Your task to perform on an android device: turn off translation in the chrome app Image 0: 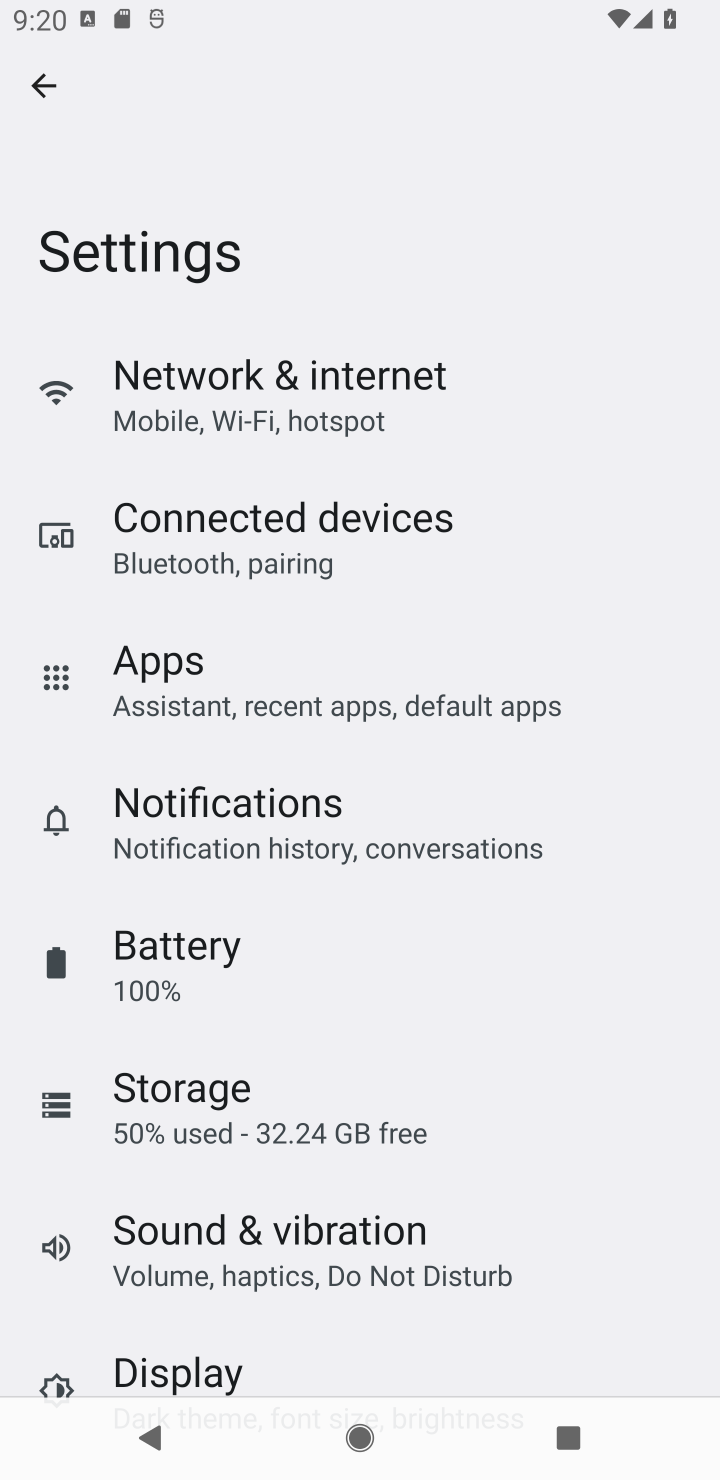
Step 0: press home button
Your task to perform on an android device: turn off translation in the chrome app Image 1: 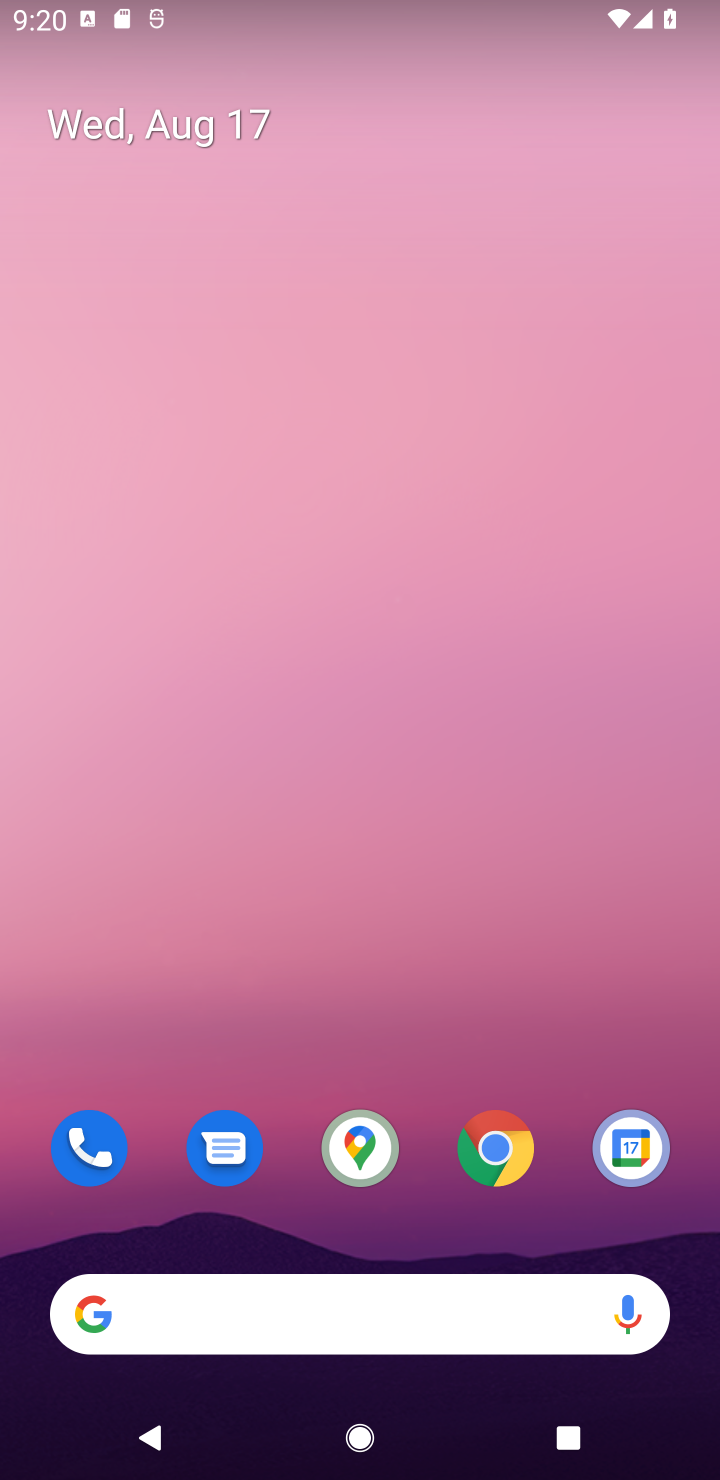
Step 1: click (500, 1155)
Your task to perform on an android device: turn off translation in the chrome app Image 2: 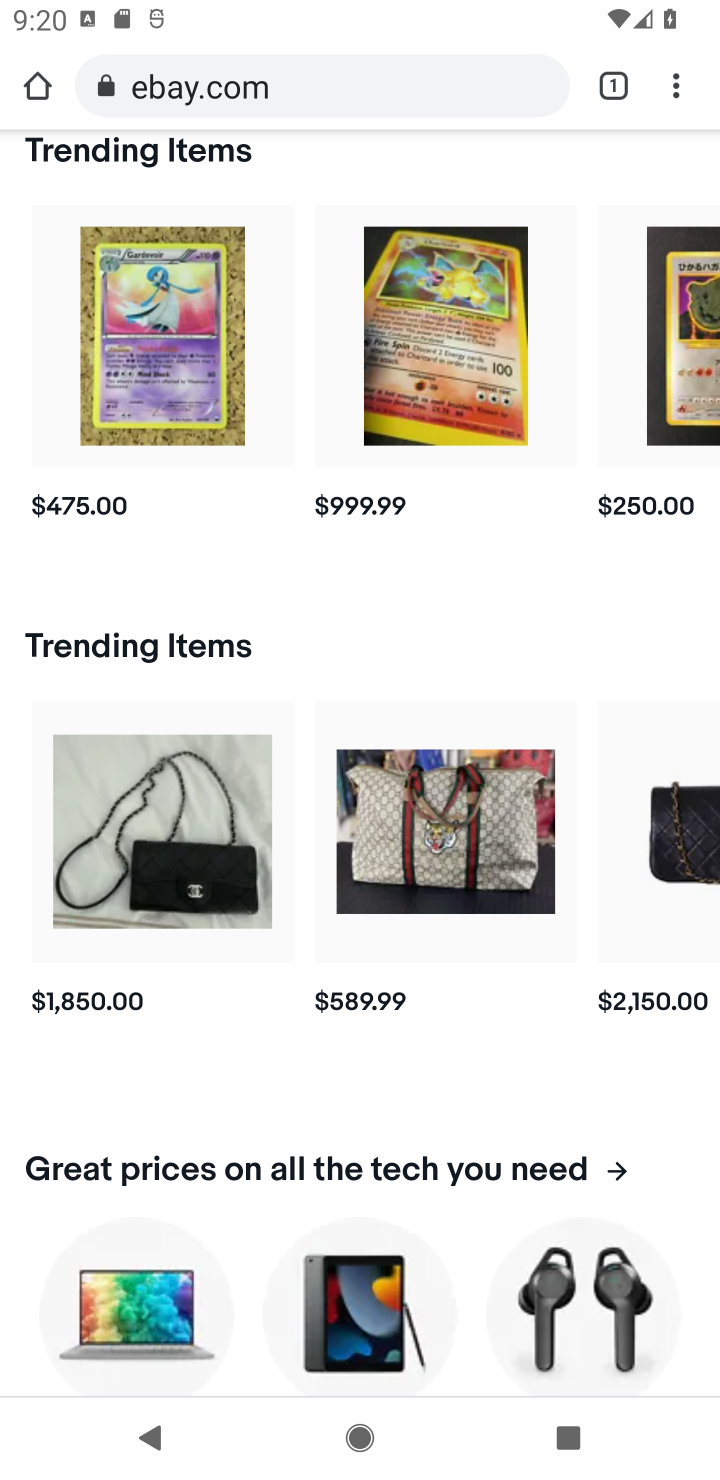
Step 2: click (666, 99)
Your task to perform on an android device: turn off translation in the chrome app Image 3: 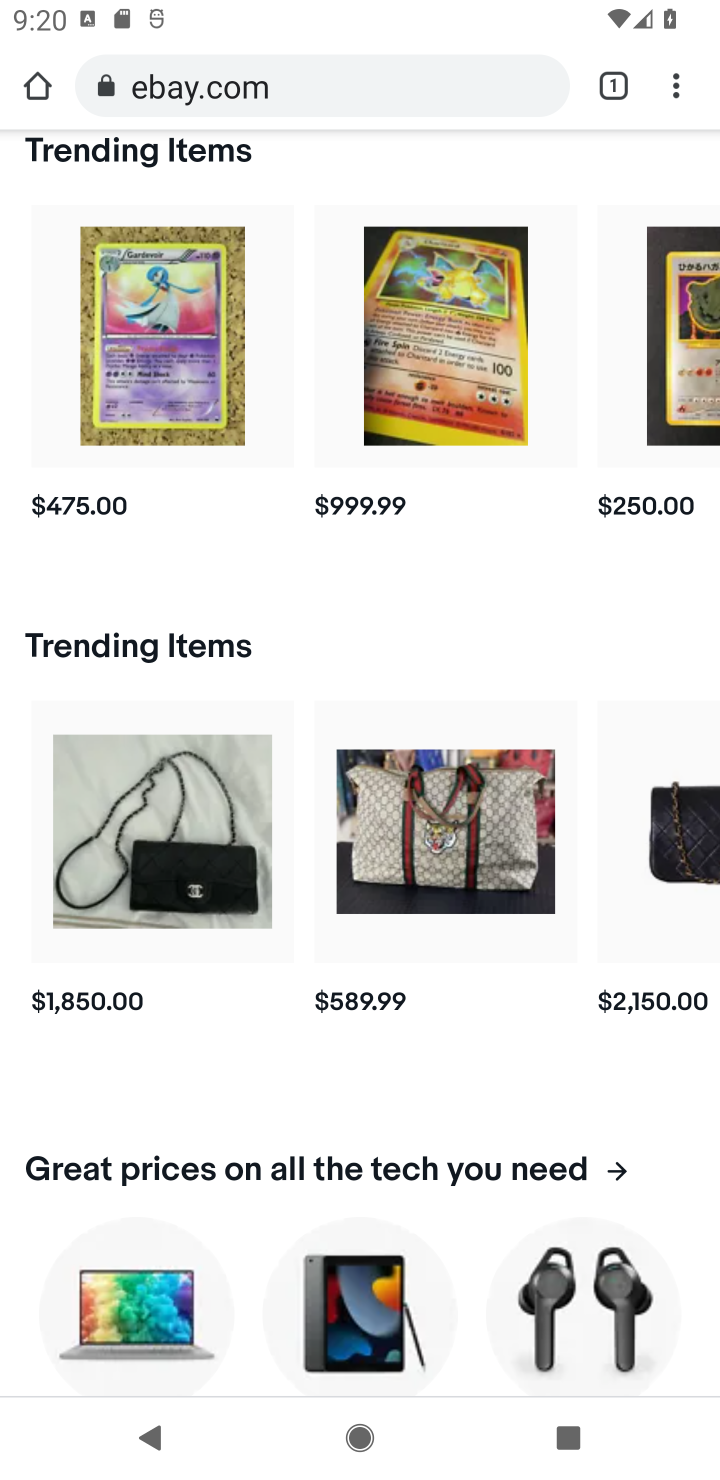
Step 3: click (666, 99)
Your task to perform on an android device: turn off translation in the chrome app Image 4: 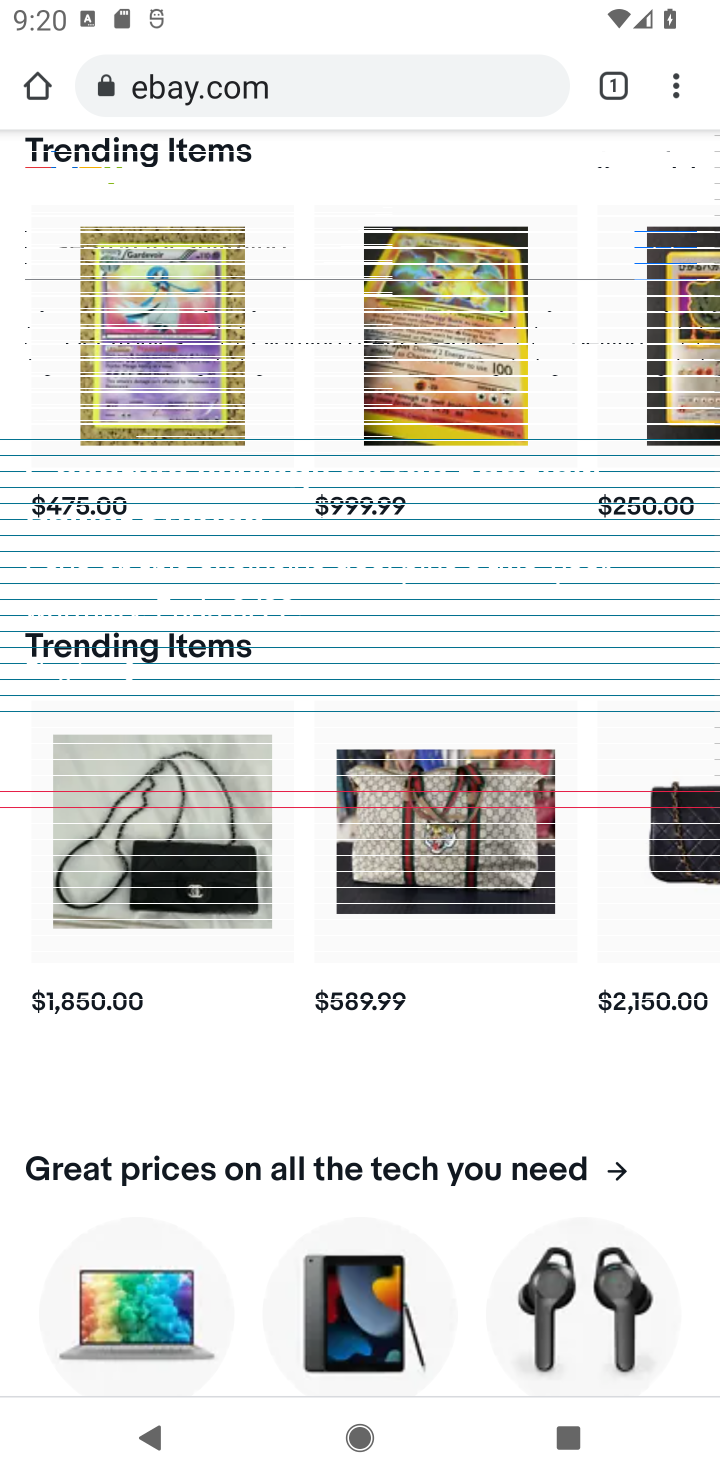
Step 4: click (662, 99)
Your task to perform on an android device: turn off translation in the chrome app Image 5: 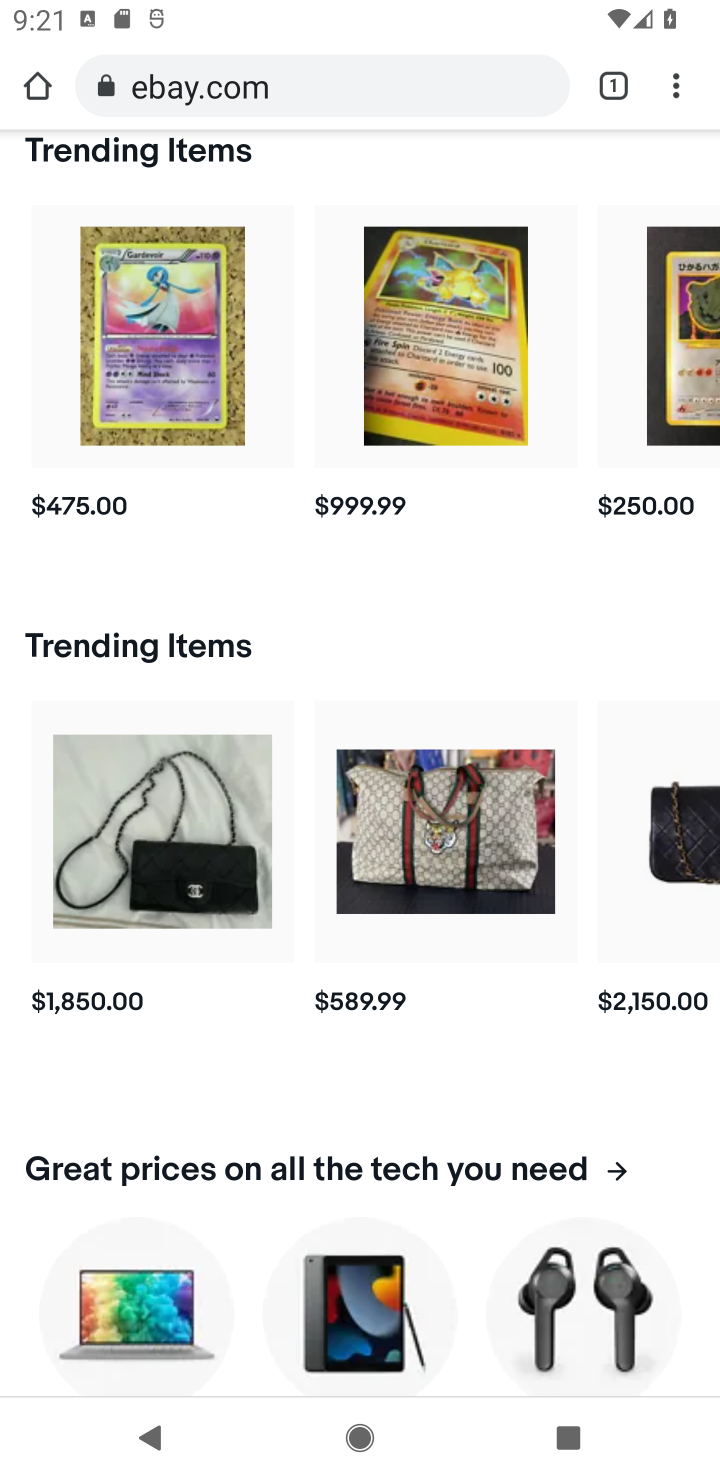
Step 5: click (672, 97)
Your task to perform on an android device: turn off translation in the chrome app Image 6: 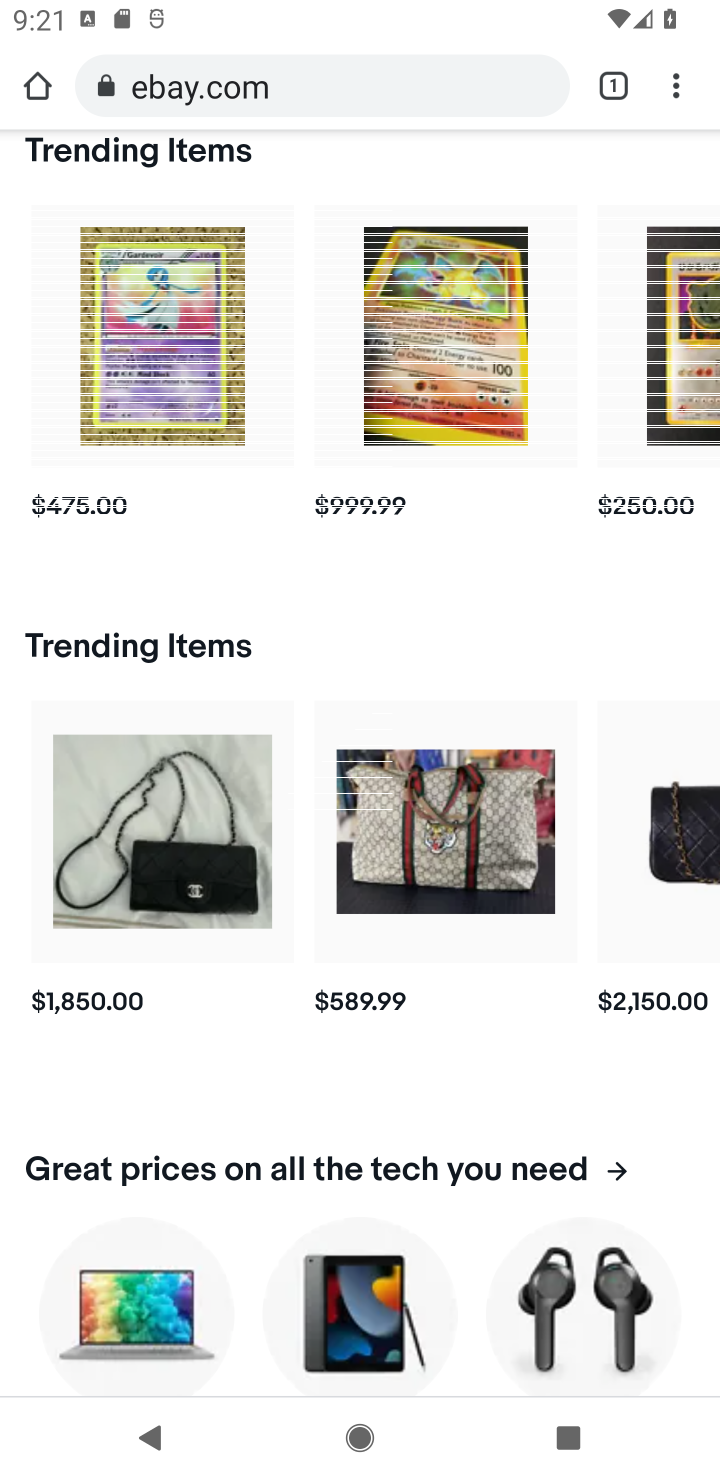
Step 6: click (664, 99)
Your task to perform on an android device: turn off translation in the chrome app Image 7: 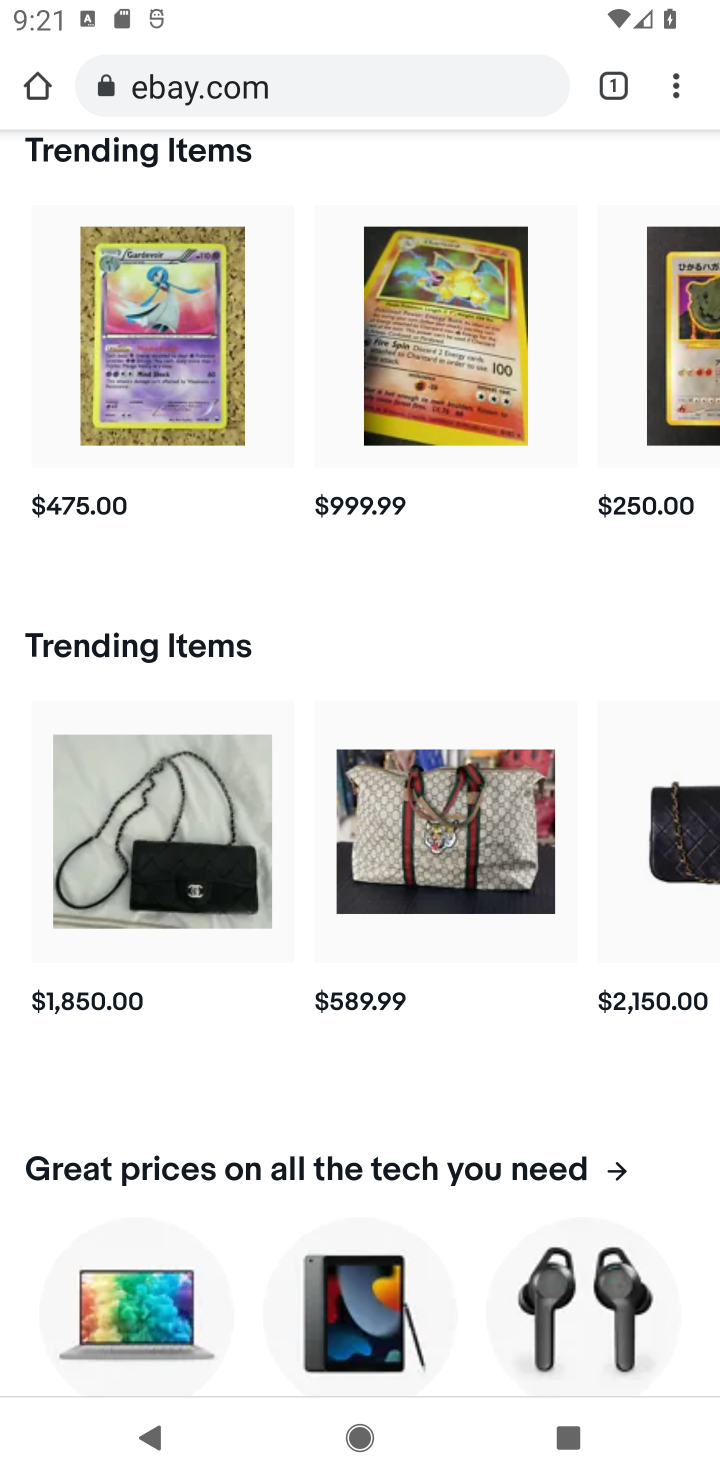
Step 7: task complete